Your task to perform on an android device: Open the calendar app, open the side menu, and click the "Day" option Image 0: 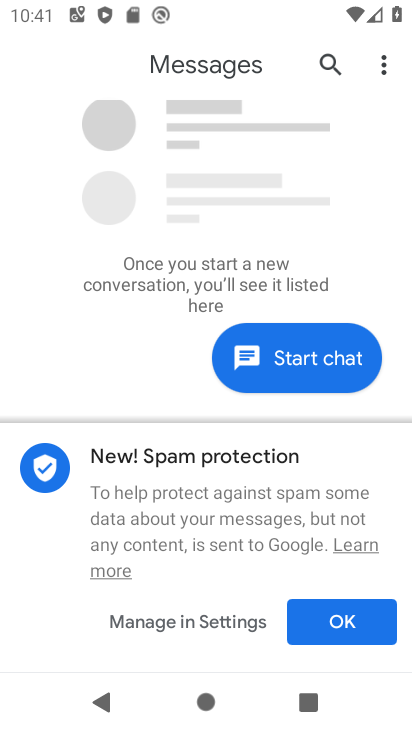
Step 0: drag from (217, 576) to (323, 56)
Your task to perform on an android device: Open the calendar app, open the side menu, and click the "Day" option Image 1: 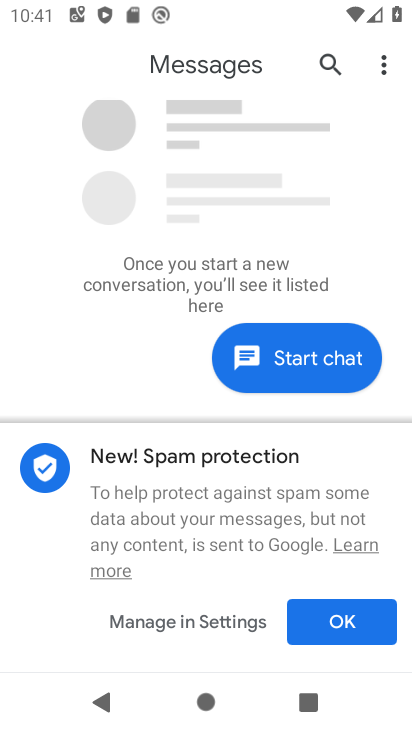
Step 1: press back button
Your task to perform on an android device: Open the calendar app, open the side menu, and click the "Day" option Image 2: 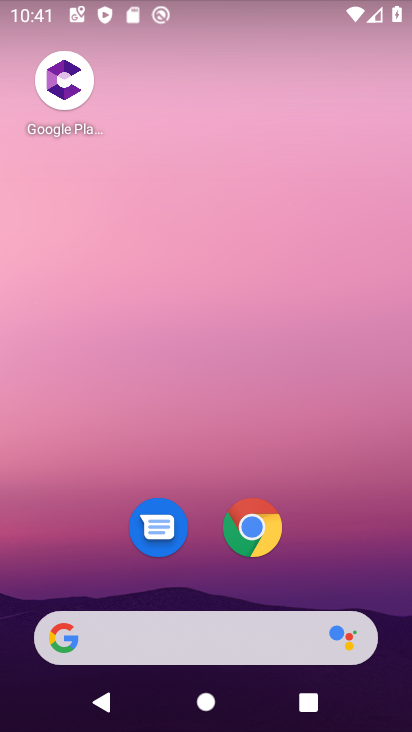
Step 2: drag from (164, 522) to (295, 8)
Your task to perform on an android device: Open the calendar app, open the side menu, and click the "Day" option Image 3: 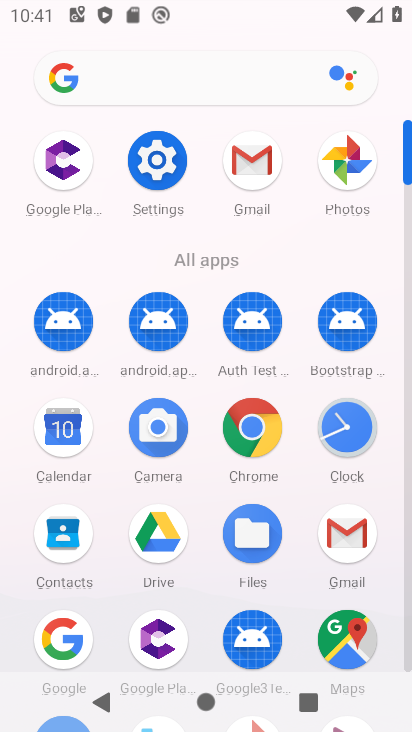
Step 3: click (339, 422)
Your task to perform on an android device: Open the calendar app, open the side menu, and click the "Day" option Image 4: 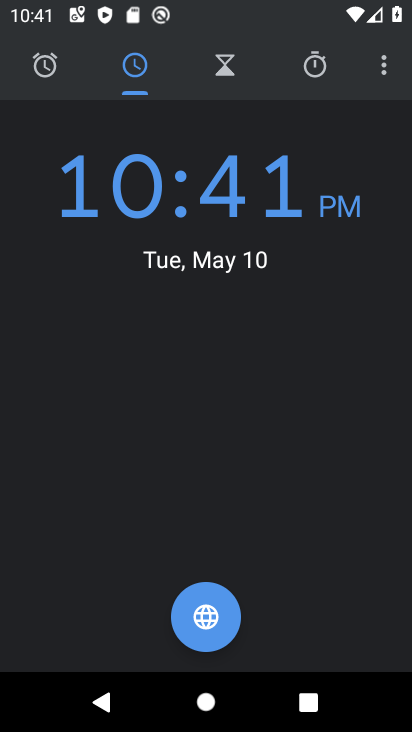
Step 4: press back button
Your task to perform on an android device: Open the calendar app, open the side menu, and click the "Day" option Image 5: 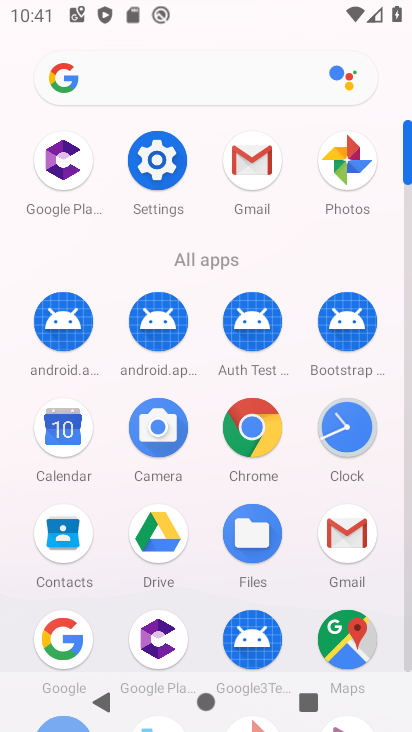
Step 5: click (72, 424)
Your task to perform on an android device: Open the calendar app, open the side menu, and click the "Day" option Image 6: 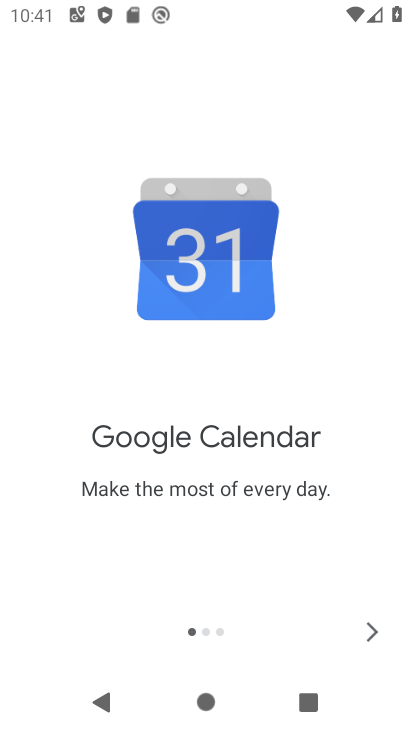
Step 6: click (364, 627)
Your task to perform on an android device: Open the calendar app, open the side menu, and click the "Day" option Image 7: 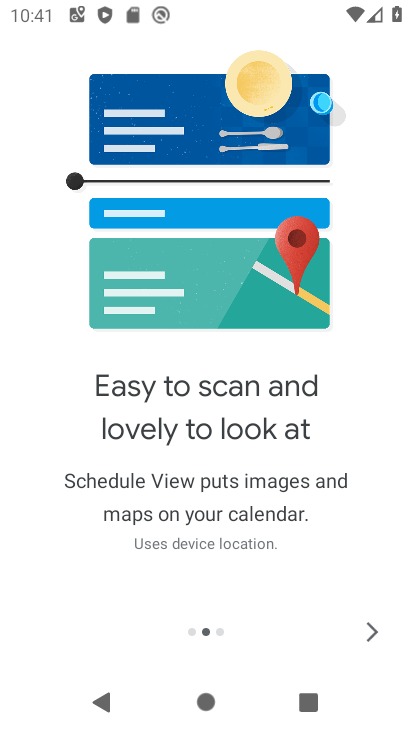
Step 7: click (364, 627)
Your task to perform on an android device: Open the calendar app, open the side menu, and click the "Day" option Image 8: 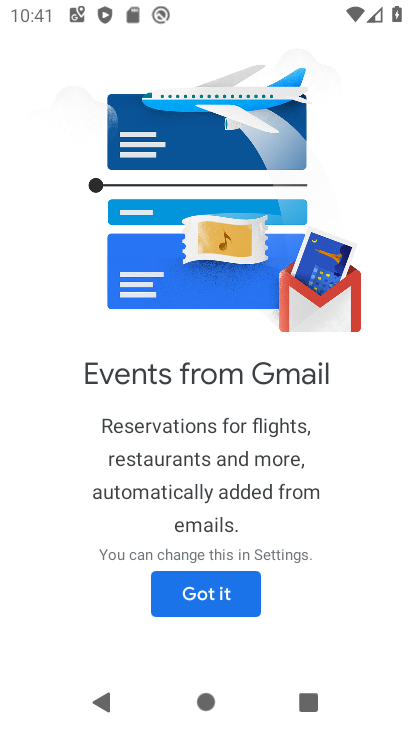
Step 8: click (227, 596)
Your task to perform on an android device: Open the calendar app, open the side menu, and click the "Day" option Image 9: 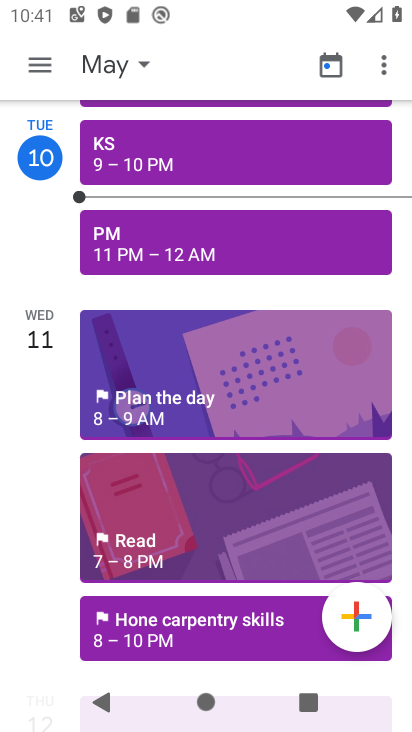
Step 9: click (9, 70)
Your task to perform on an android device: Open the calendar app, open the side menu, and click the "Day" option Image 10: 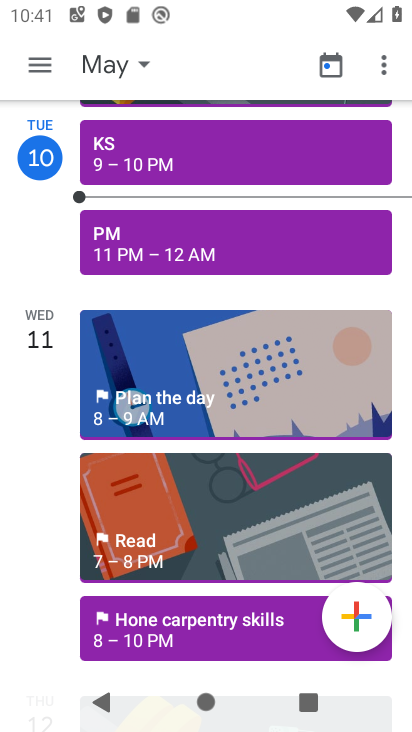
Step 10: click (21, 65)
Your task to perform on an android device: Open the calendar app, open the side menu, and click the "Day" option Image 11: 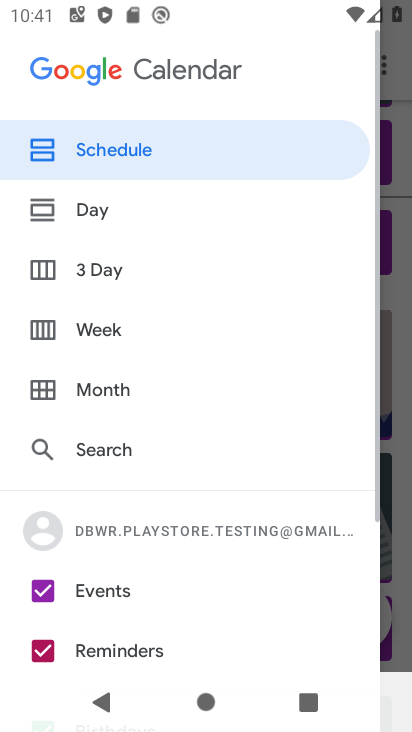
Step 11: click (105, 212)
Your task to perform on an android device: Open the calendar app, open the side menu, and click the "Day" option Image 12: 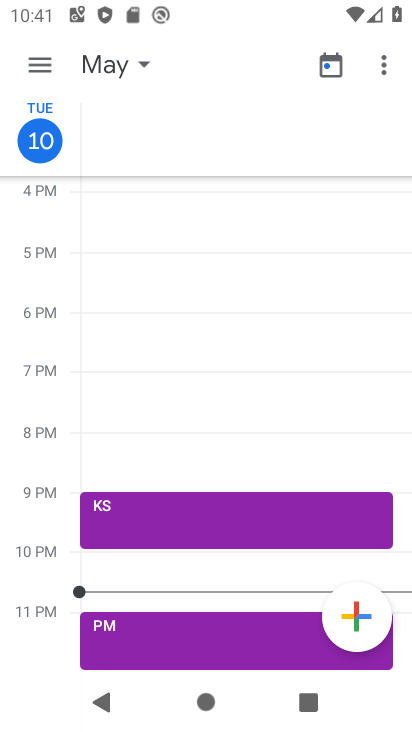
Step 12: task complete